Your task to perform on an android device: snooze an email in the gmail app Image 0: 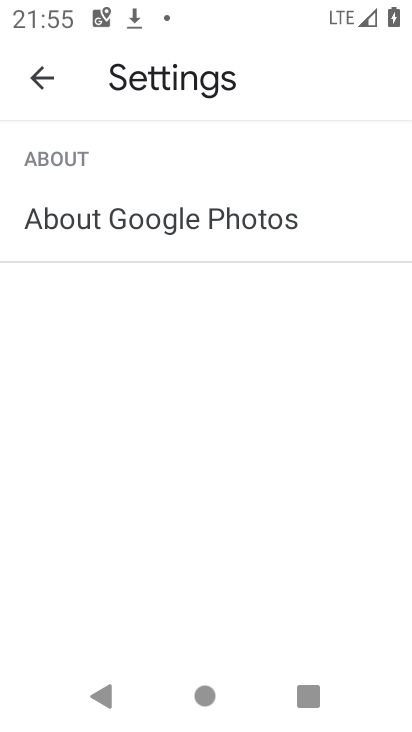
Step 0: press back button
Your task to perform on an android device: snooze an email in the gmail app Image 1: 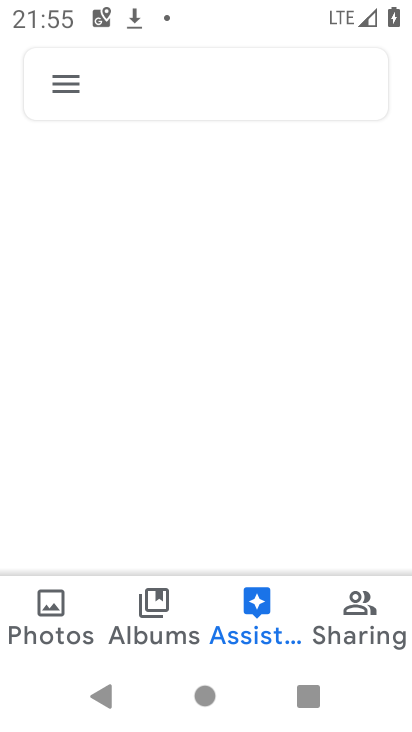
Step 1: press back button
Your task to perform on an android device: snooze an email in the gmail app Image 2: 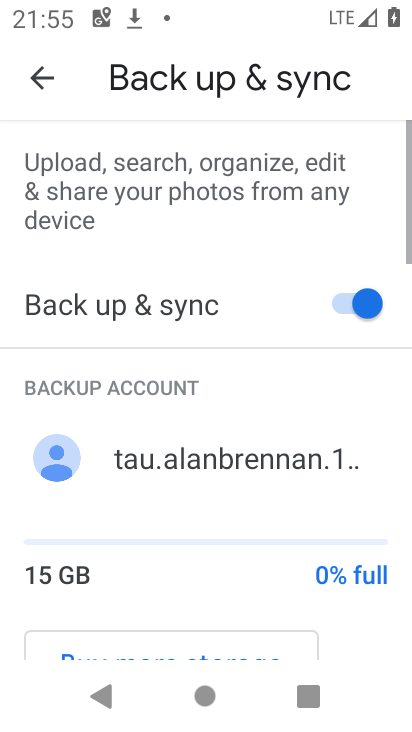
Step 2: press back button
Your task to perform on an android device: snooze an email in the gmail app Image 3: 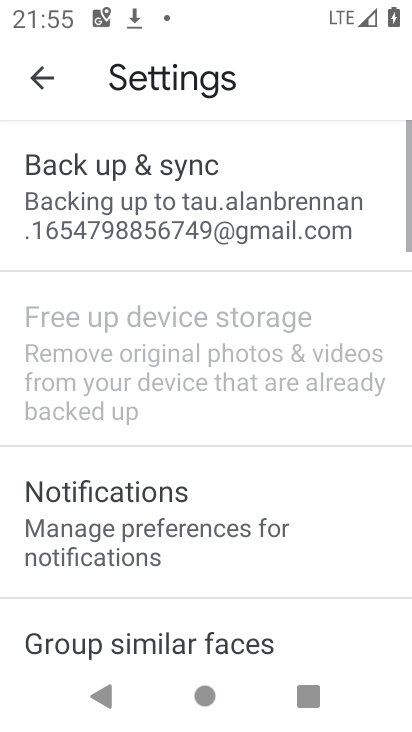
Step 3: press back button
Your task to perform on an android device: snooze an email in the gmail app Image 4: 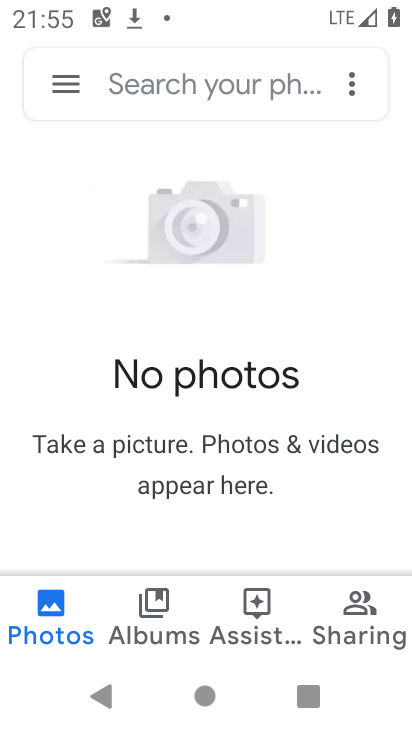
Step 4: press back button
Your task to perform on an android device: snooze an email in the gmail app Image 5: 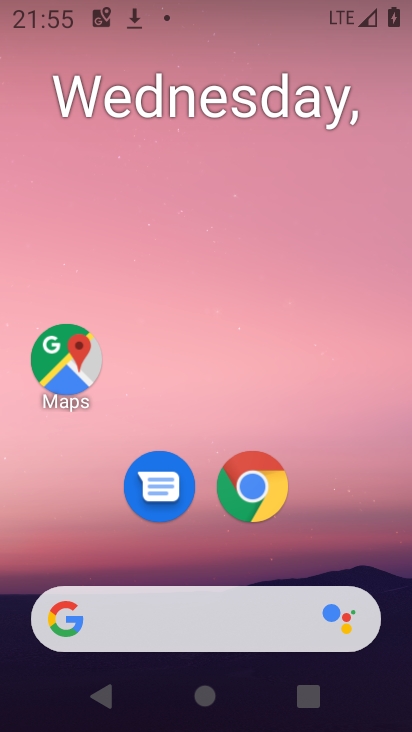
Step 5: drag from (200, 552) to (245, 0)
Your task to perform on an android device: snooze an email in the gmail app Image 6: 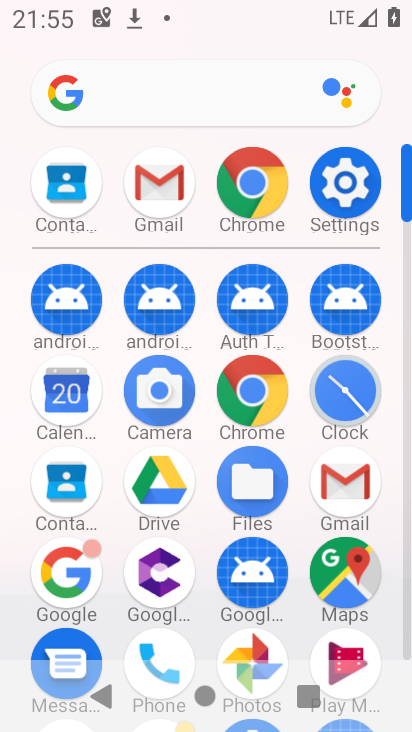
Step 6: click (134, 170)
Your task to perform on an android device: snooze an email in the gmail app Image 7: 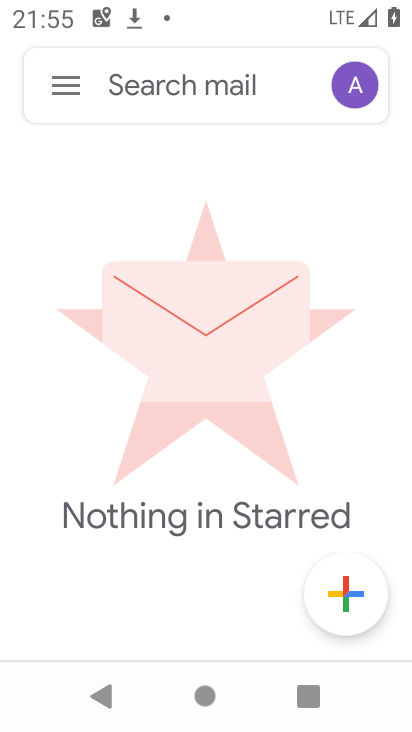
Step 7: click (63, 89)
Your task to perform on an android device: snooze an email in the gmail app Image 8: 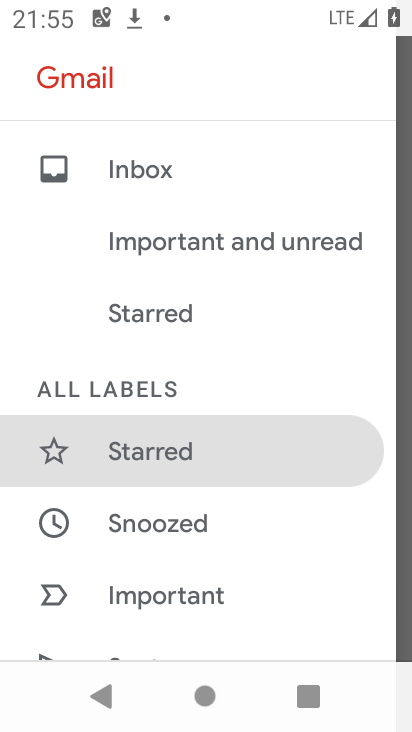
Step 8: click (157, 519)
Your task to perform on an android device: snooze an email in the gmail app Image 9: 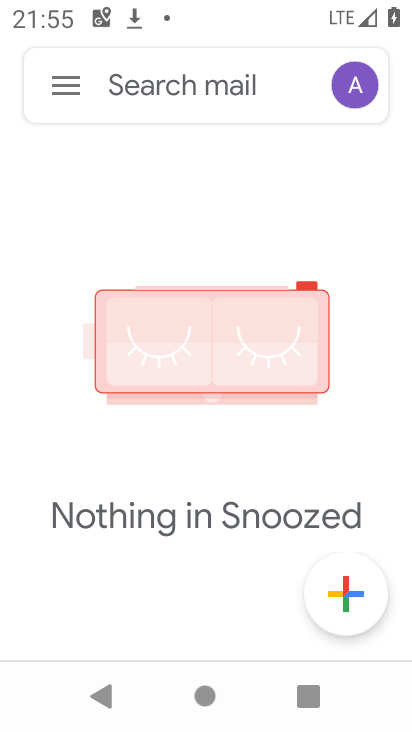
Step 9: task complete